Your task to perform on an android device: What is the recent news? Image 0: 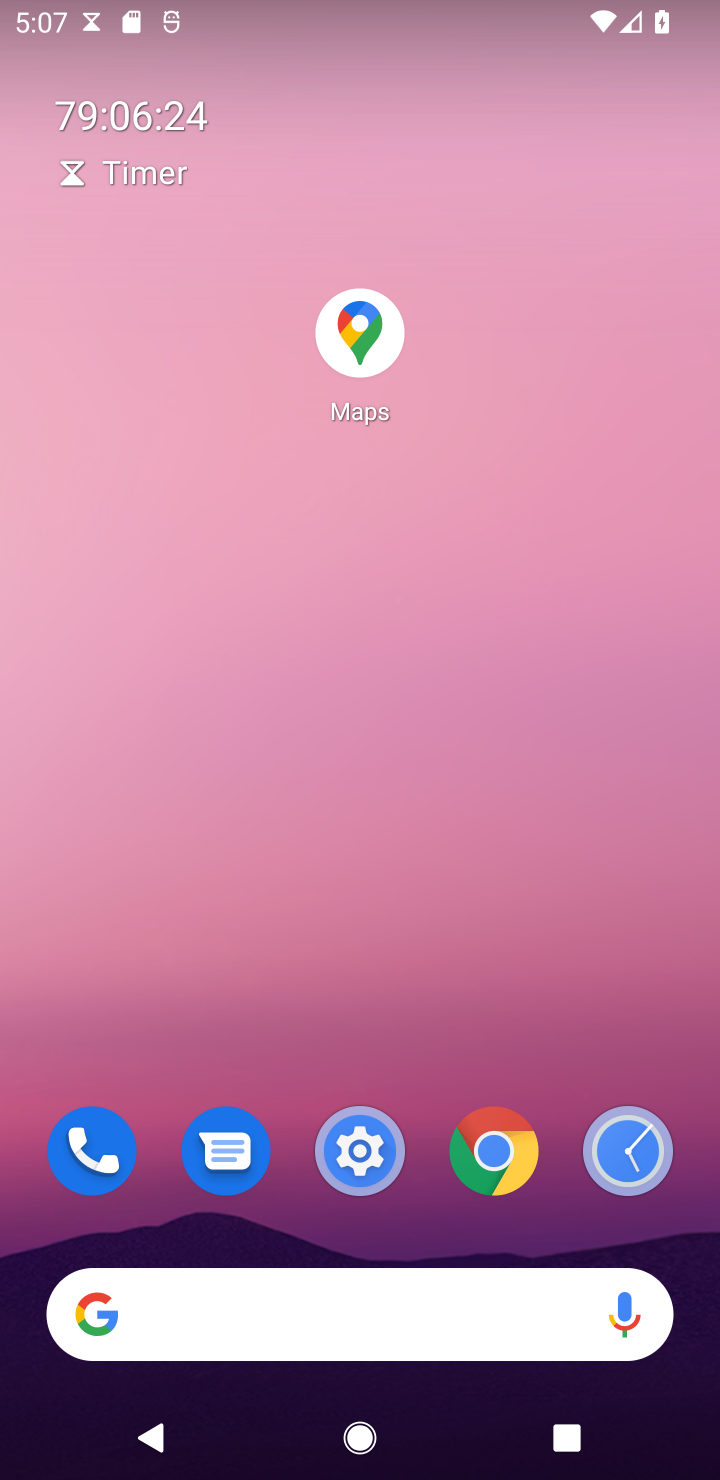
Step 0: drag from (437, 841) to (476, 312)
Your task to perform on an android device: What is the recent news? Image 1: 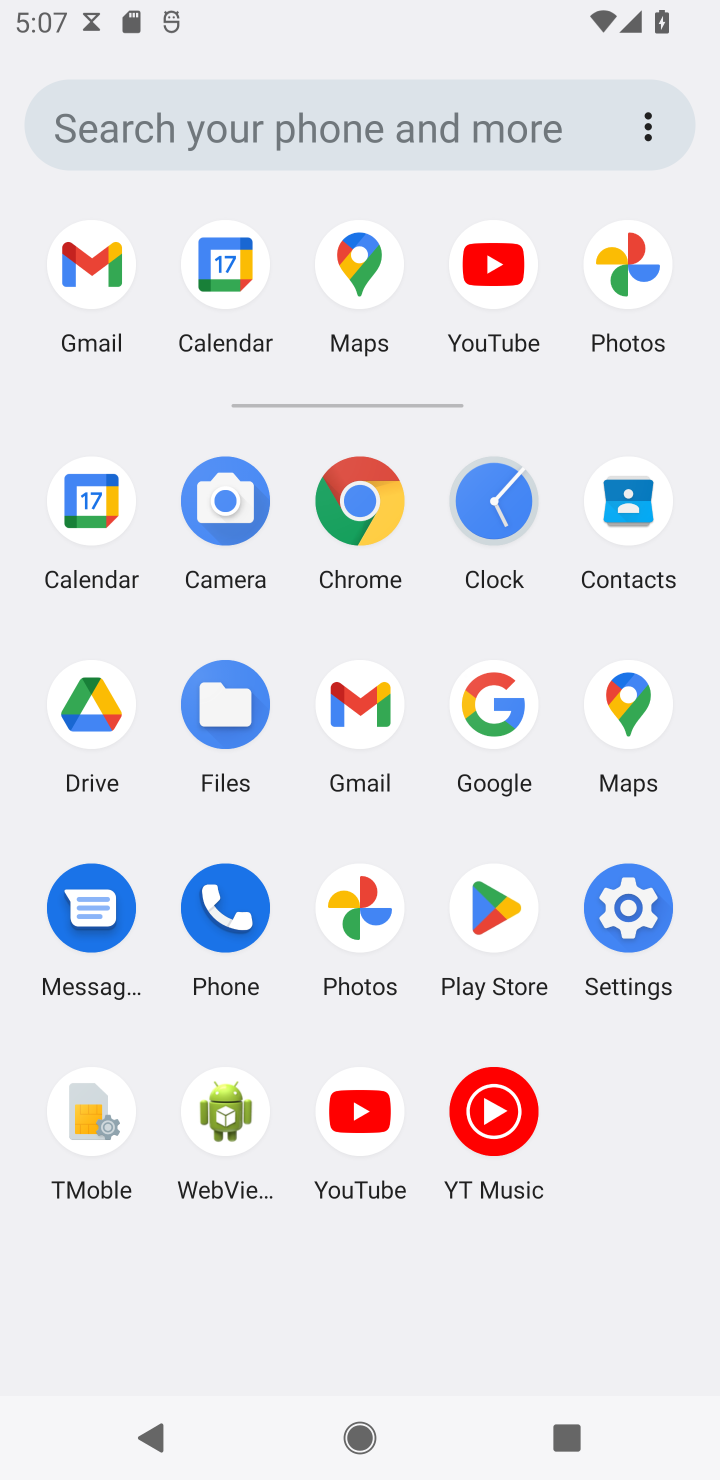
Step 1: click (375, 500)
Your task to perform on an android device: What is the recent news? Image 2: 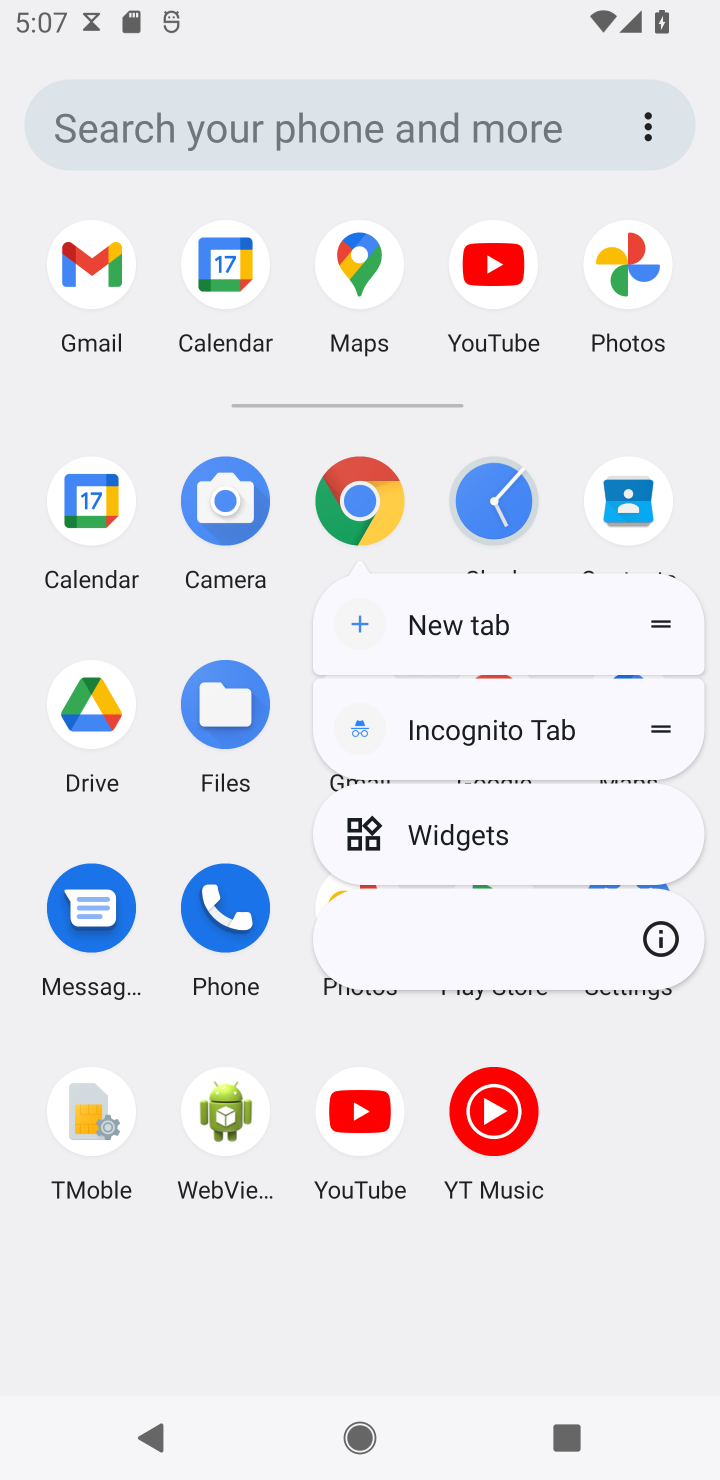
Step 2: click (375, 500)
Your task to perform on an android device: What is the recent news? Image 3: 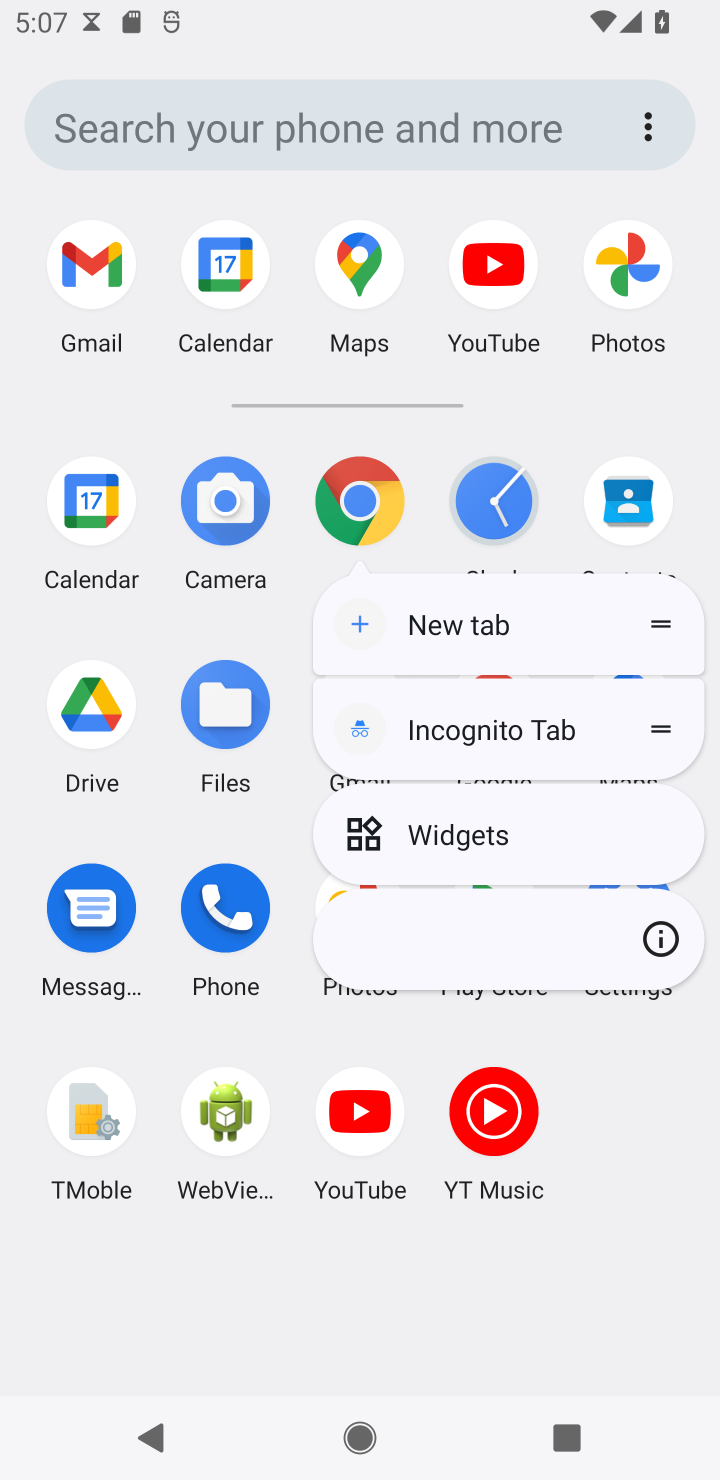
Step 3: click (375, 500)
Your task to perform on an android device: What is the recent news? Image 4: 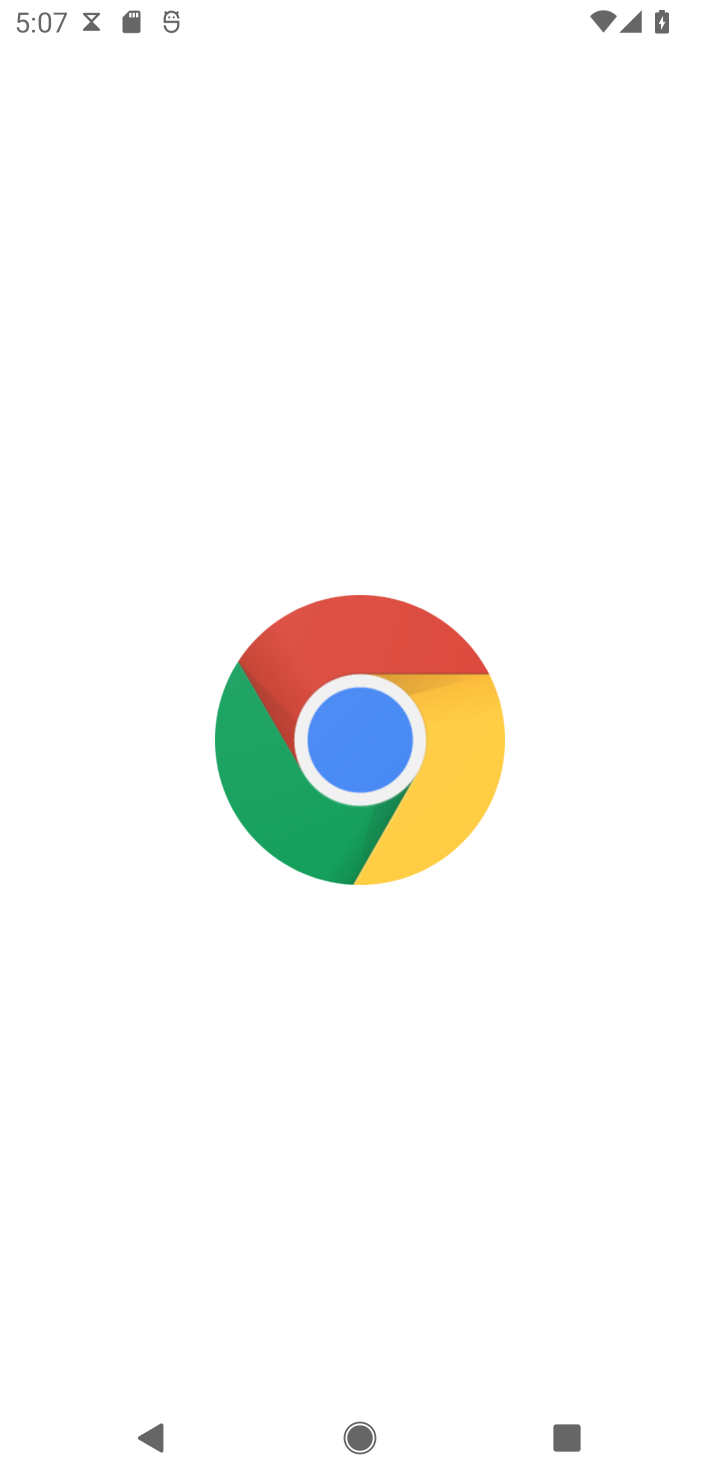
Step 4: click (350, 489)
Your task to perform on an android device: What is the recent news? Image 5: 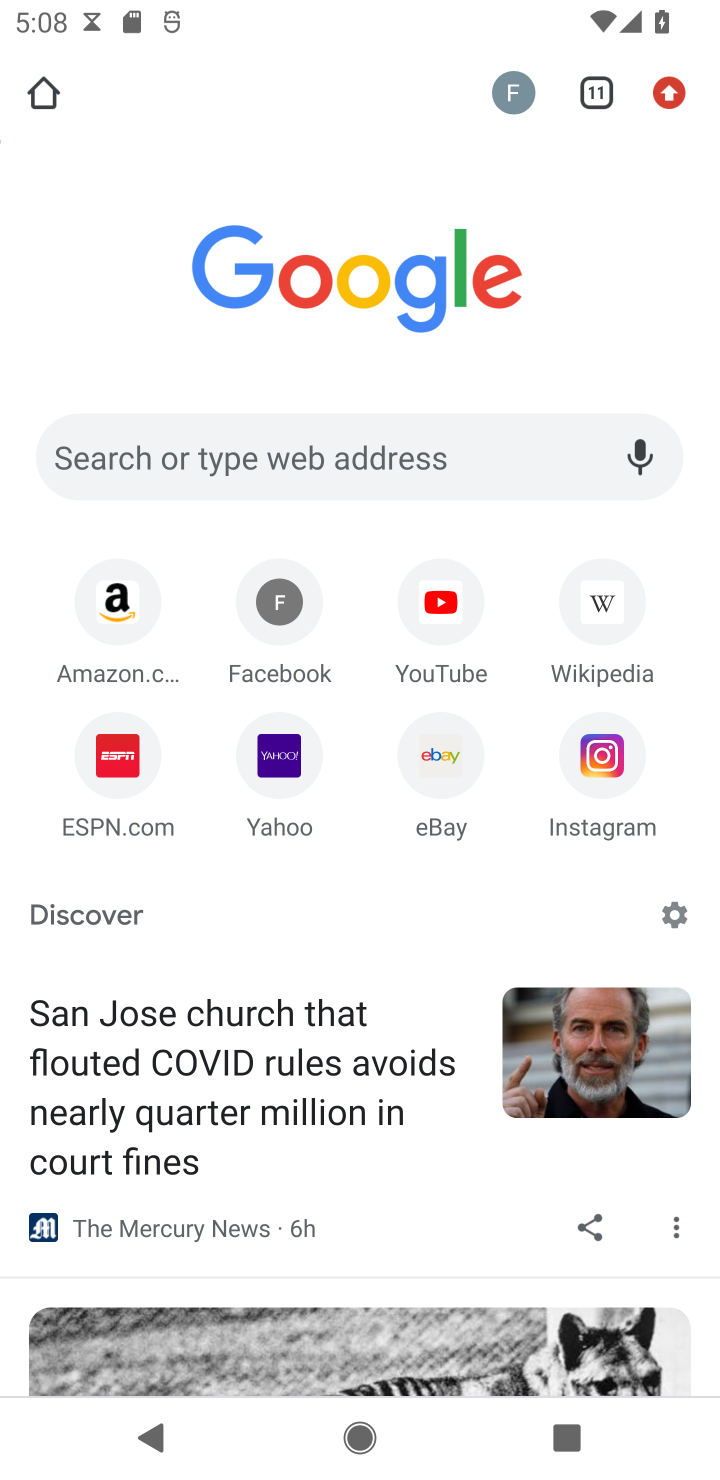
Step 5: click (340, 441)
Your task to perform on an android device: What is the recent news? Image 6: 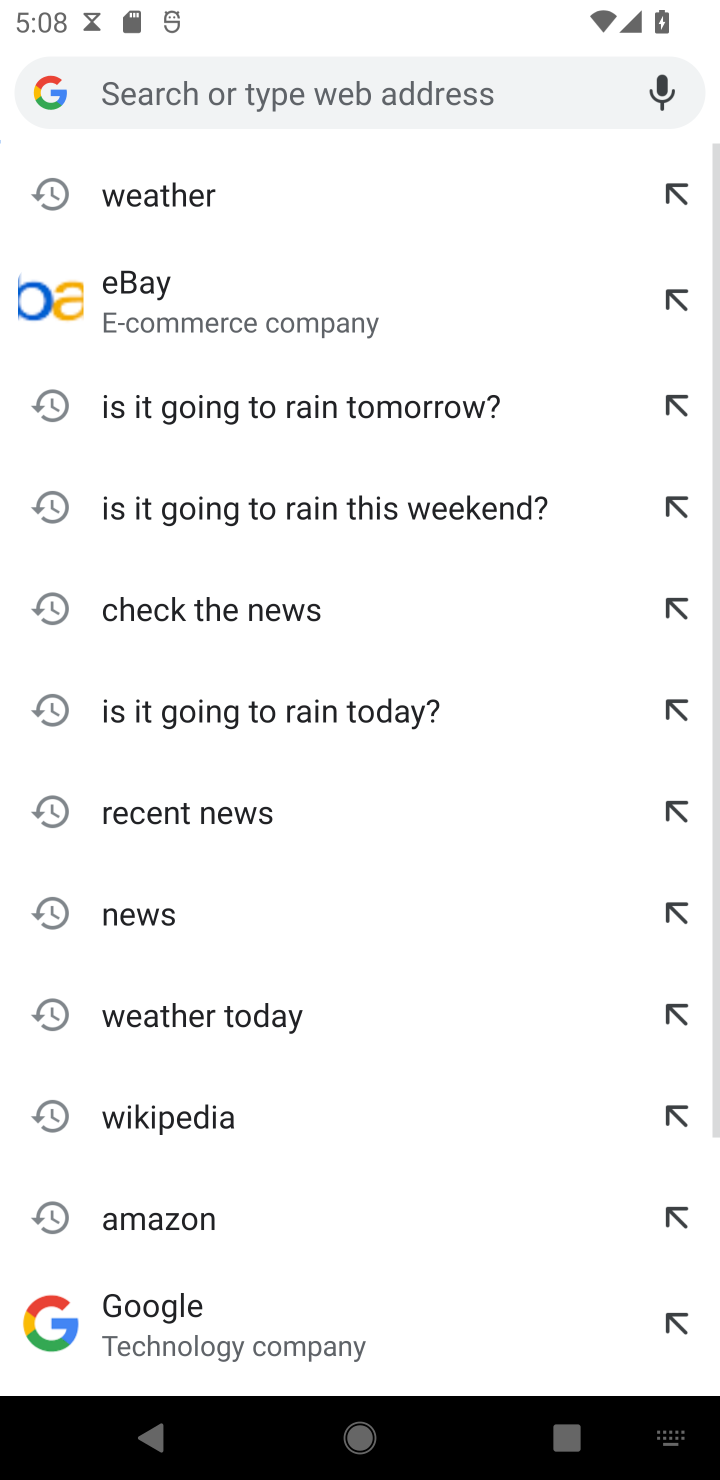
Step 6: type "What is the recent news? "
Your task to perform on an android device: What is the recent news? Image 7: 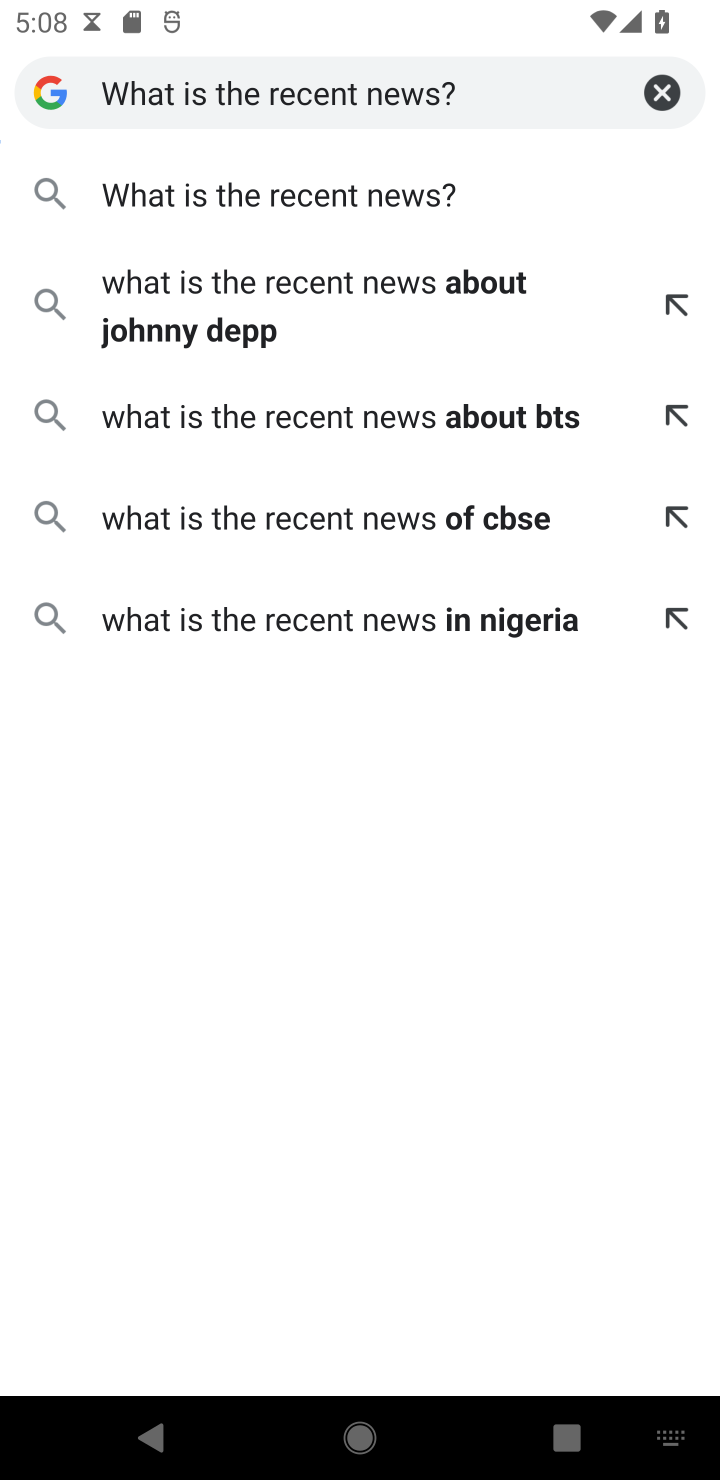
Step 7: click (334, 195)
Your task to perform on an android device: What is the recent news? Image 8: 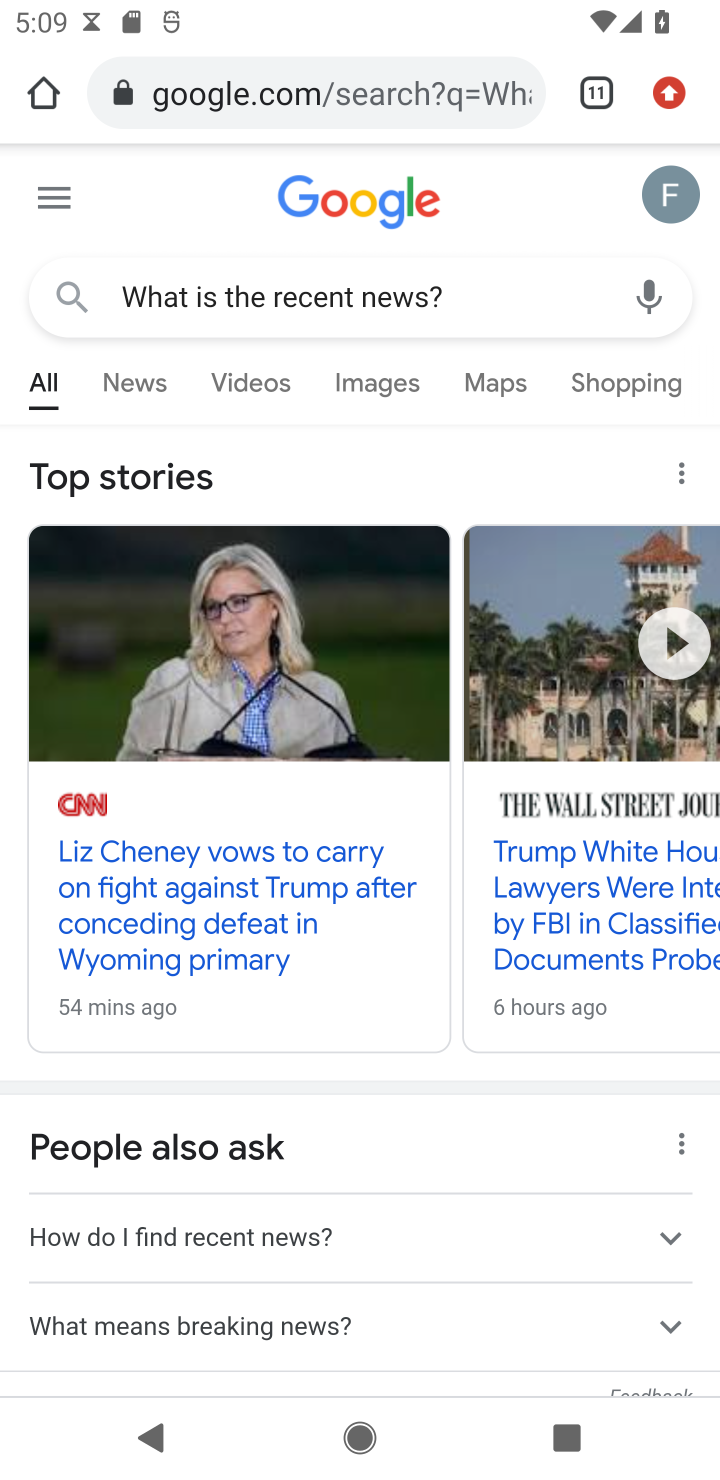
Step 8: task complete